Your task to perform on an android device: Go to privacy settings Image 0: 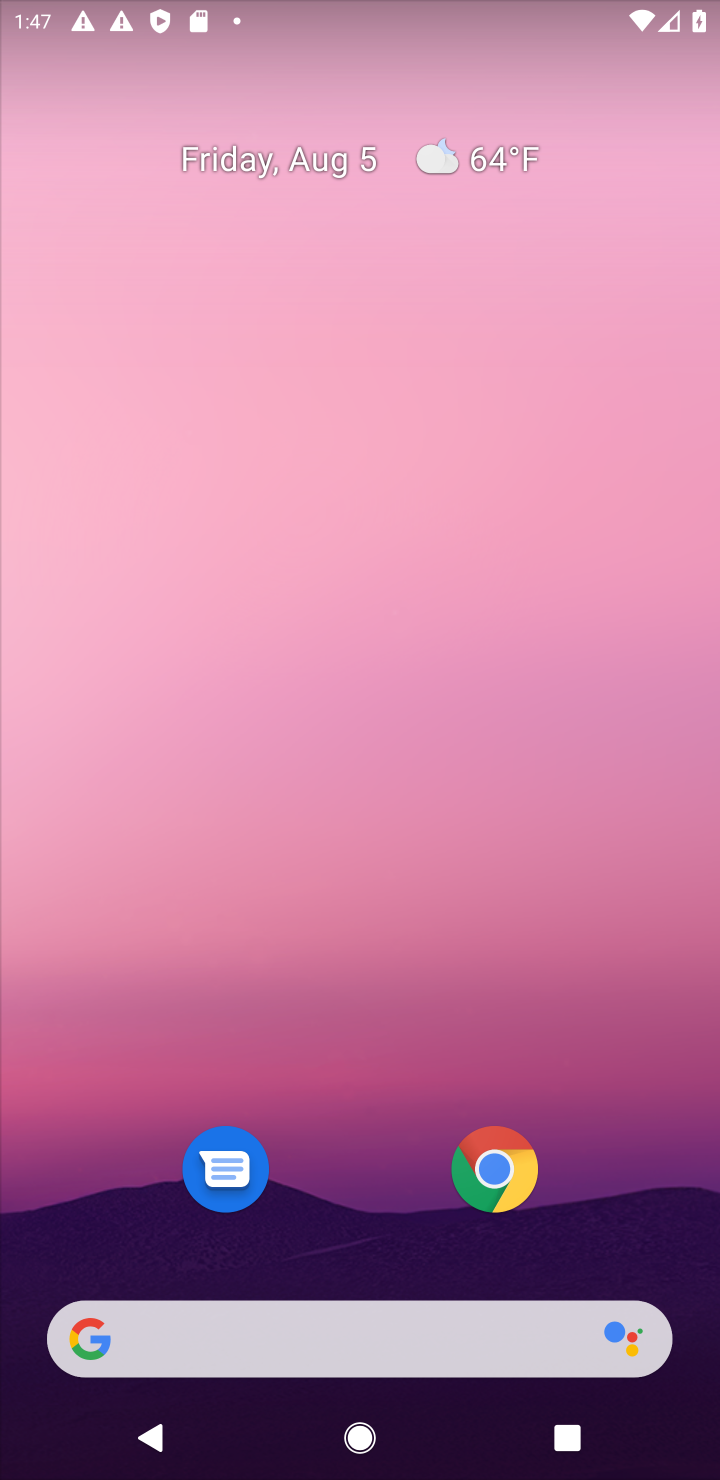
Step 0: drag from (351, 1162) to (295, 208)
Your task to perform on an android device: Go to privacy settings Image 1: 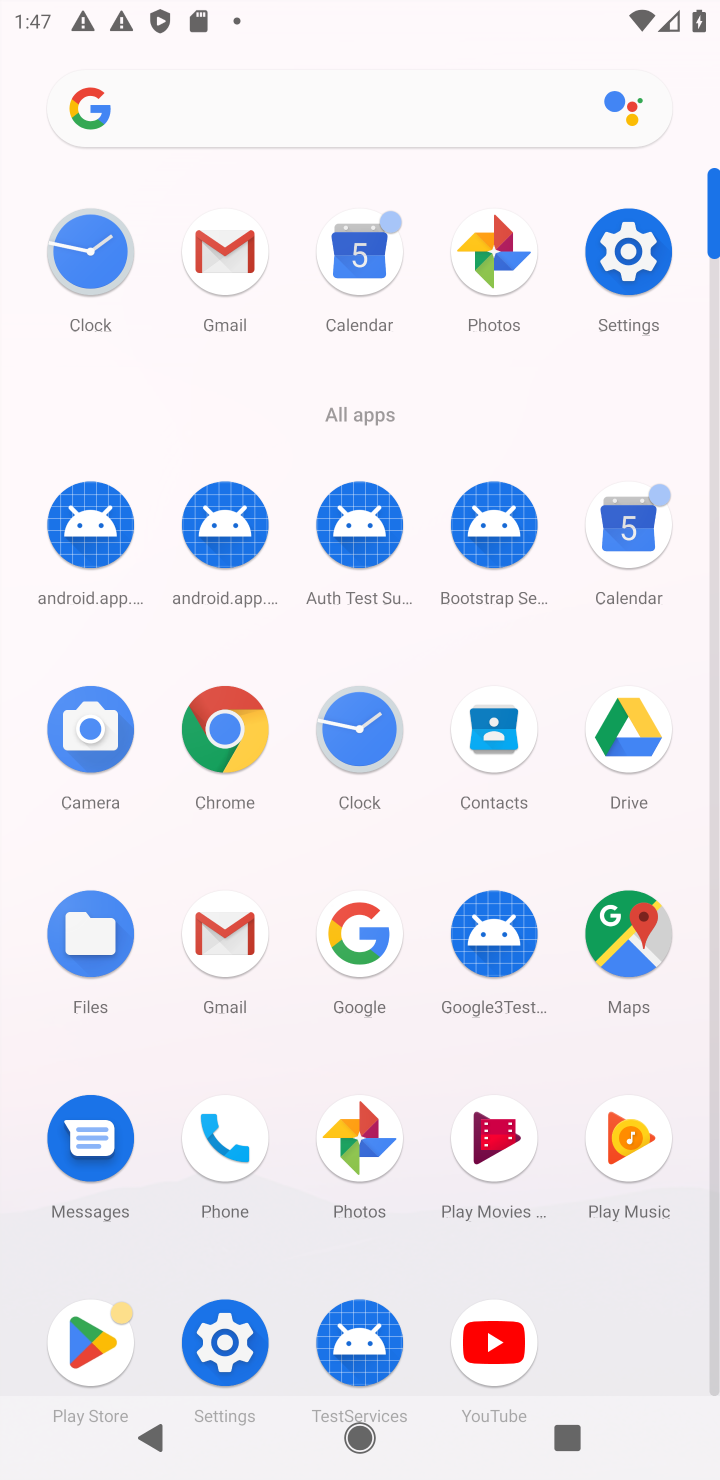
Step 1: click (624, 254)
Your task to perform on an android device: Go to privacy settings Image 2: 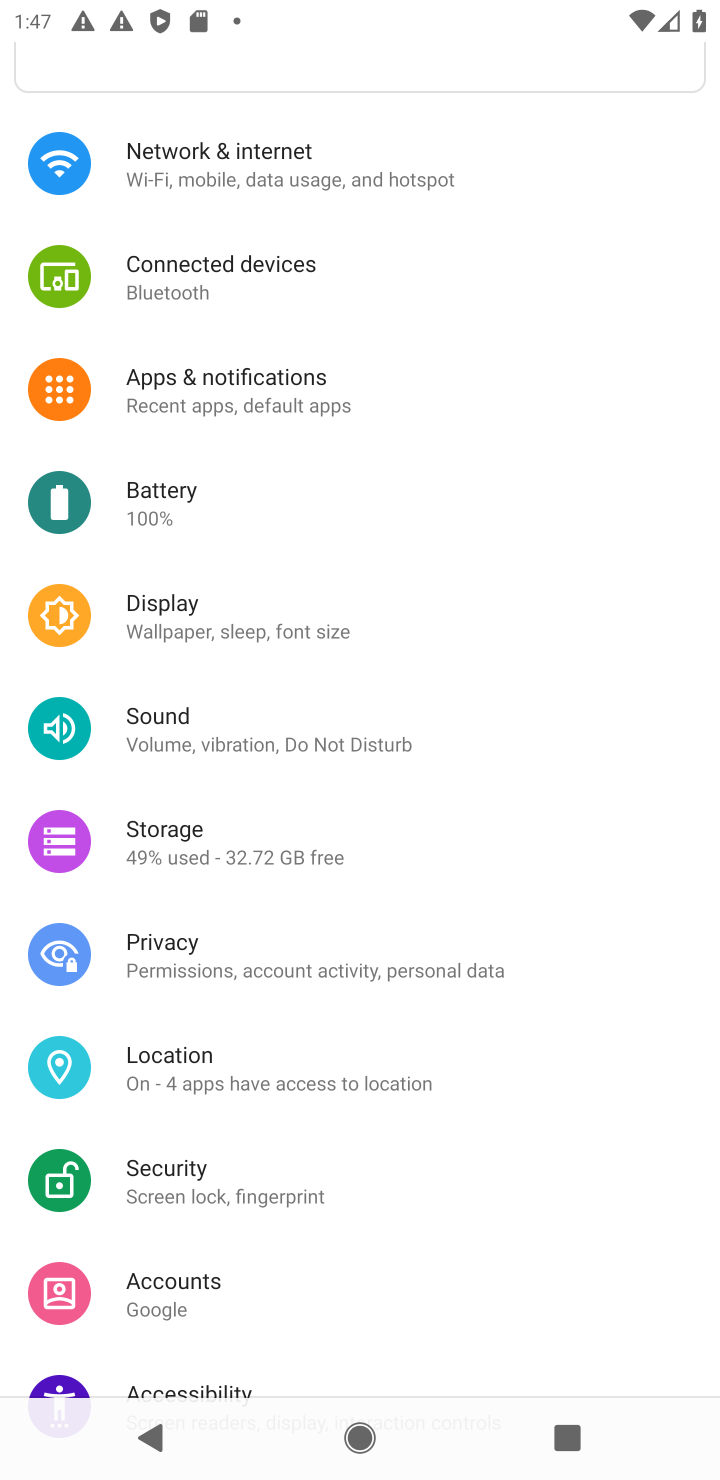
Step 2: click (208, 972)
Your task to perform on an android device: Go to privacy settings Image 3: 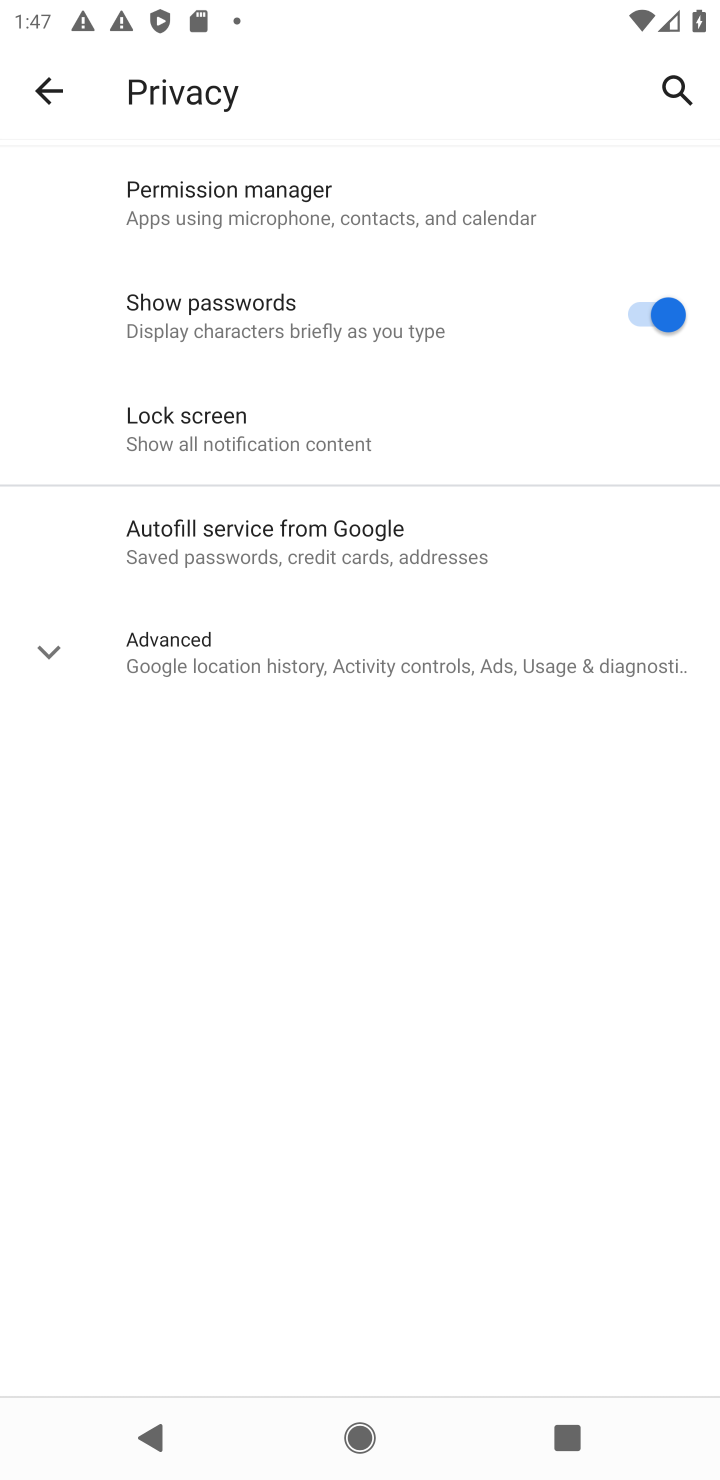
Step 3: task complete